Your task to perform on an android device: toggle sleep mode Image 0: 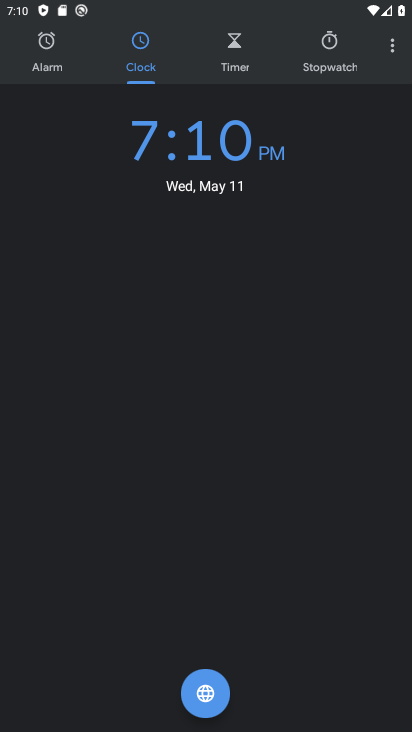
Step 0: press home button
Your task to perform on an android device: toggle sleep mode Image 1: 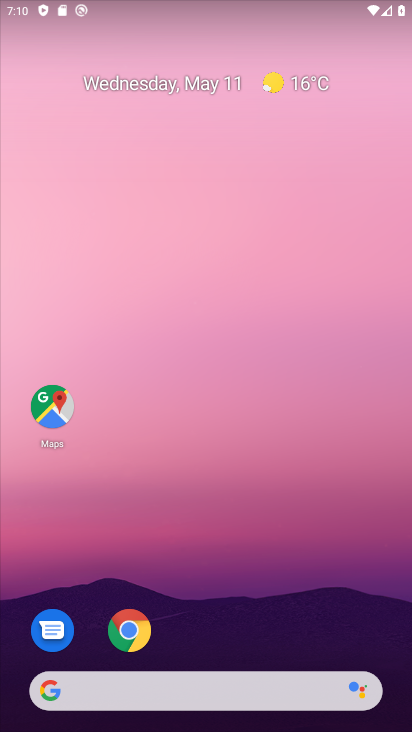
Step 1: drag from (278, 537) to (324, 18)
Your task to perform on an android device: toggle sleep mode Image 2: 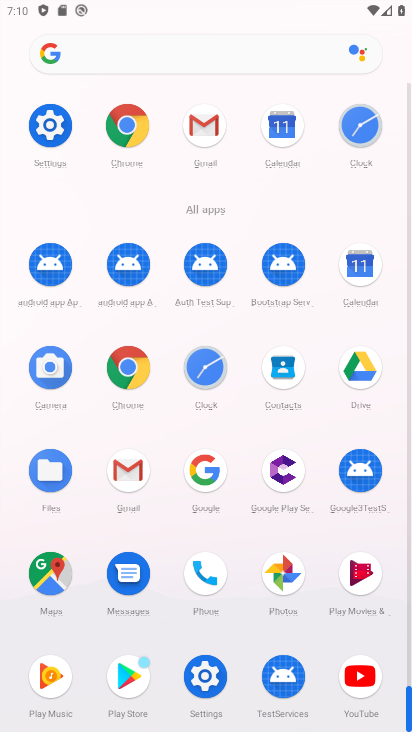
Step 2: click (61, 127)
Your task to perform on an android device: toggle sleep mode Image 3: 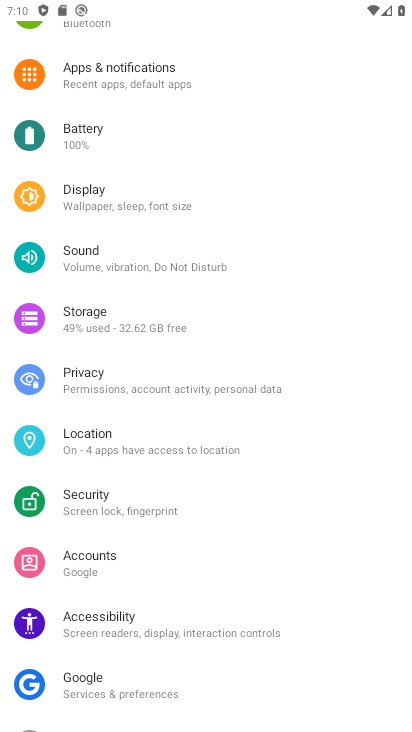
Step 3: click (82, 201)
Your task to perform on an android device: toggle sleep mode Image 4: 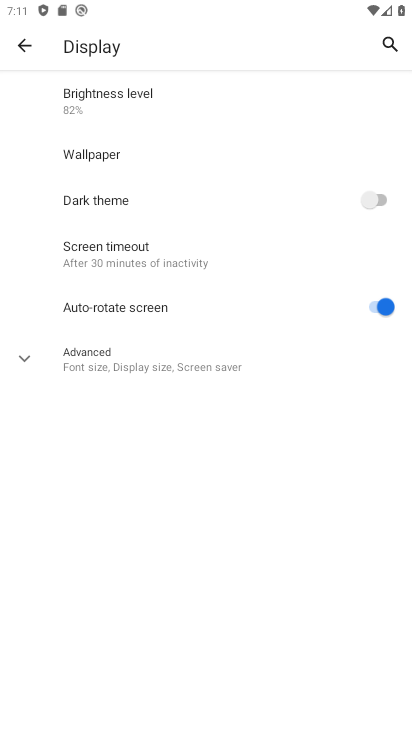
Step 4: click (113, 252)
Your task to perform on an android device: toggle sleep mode Image 5: 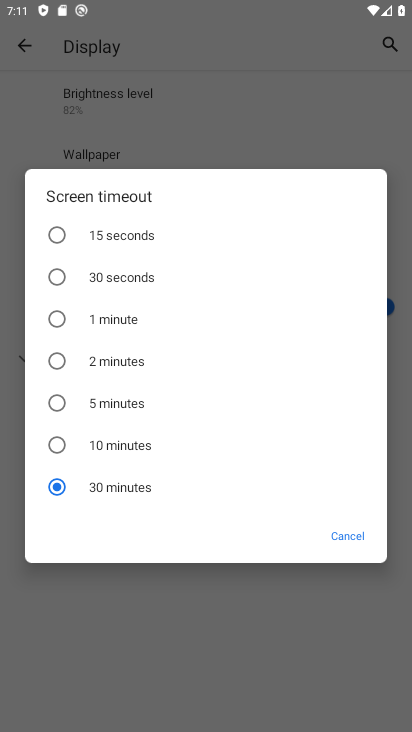
Step 5: click (112, 363)
Your task to perform on an android device: toggle sleep mode Image 6: 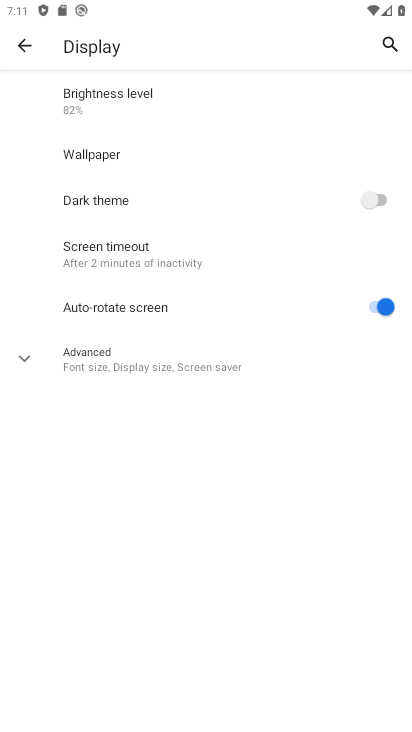
Step 6: task complete